Your task to perform on an android device: empty trash in the gmail app Image 0: 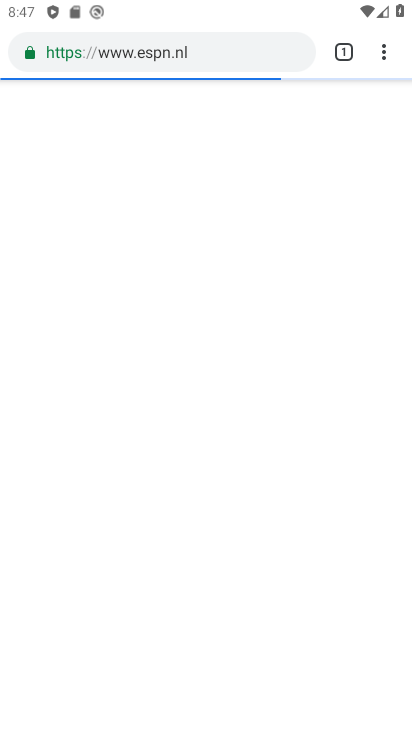
Step 0: press home button
Your task to perform on an android device: empty trash in the gmail app Image 1: 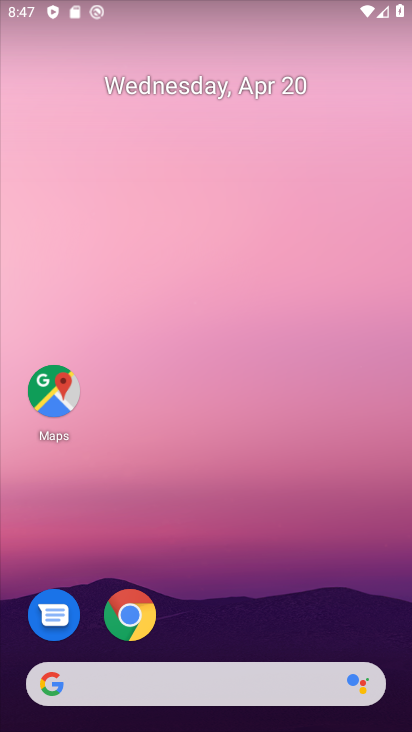
Step 1: drag from (204, 648) to (221, 55)
Your task to perform on an android device: empty trash in the gmail app Image 2: 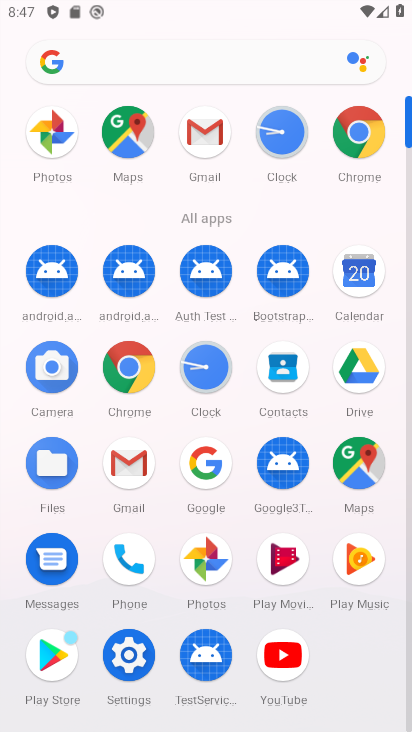
Step 2: click (124, 455)
Your task to perform on an android device: empty trash in the gmail app Image 3: 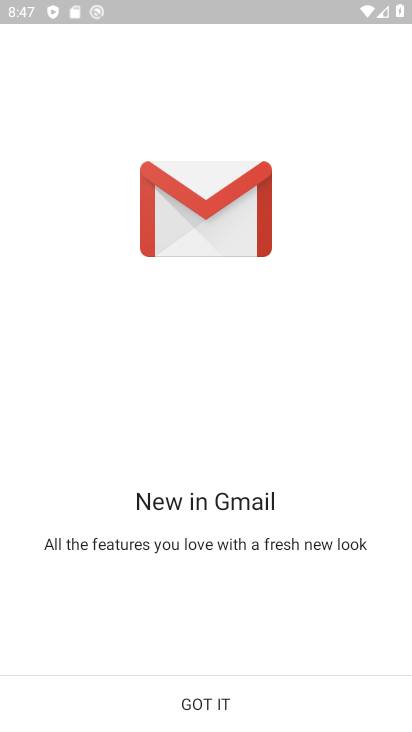
Step 3: click (167, 711)
Your task to perform on an android device: empty trash in the gmail app Image 4: 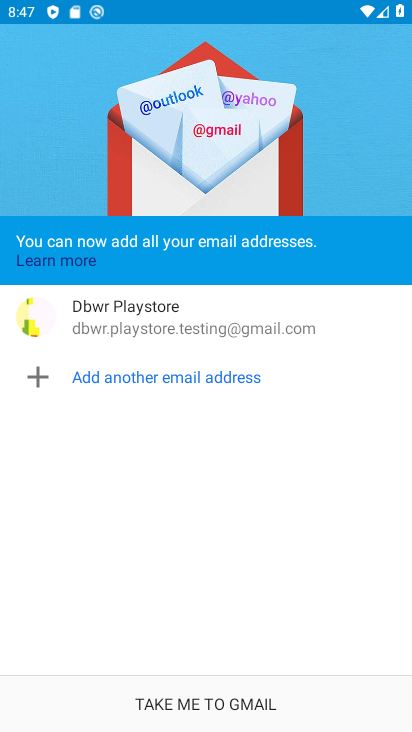
Step 4: click (168, 710)
Your task to perform on an android device: empty trash in the gmail app Image 5: 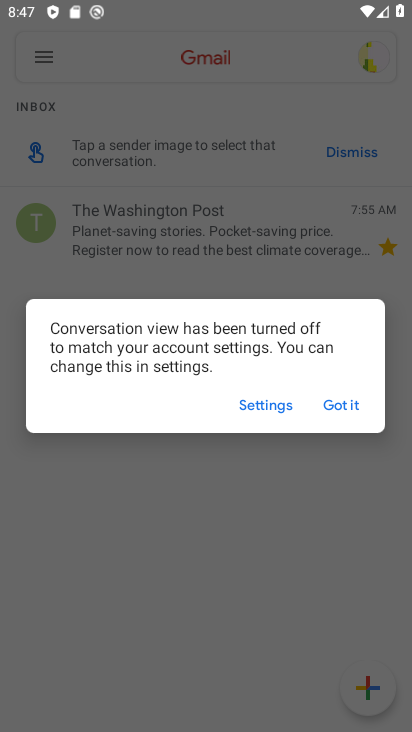
Step 5: click (328, 403)
Your task to perform on an android device: empty trash in the gmail app Image 6: 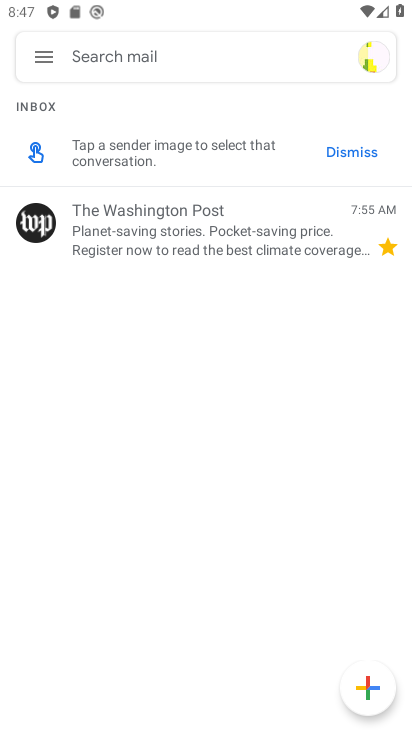
Step 6: click (23, 45)
Your task to perform on an android device: empty trash in the gmail app Image 7: 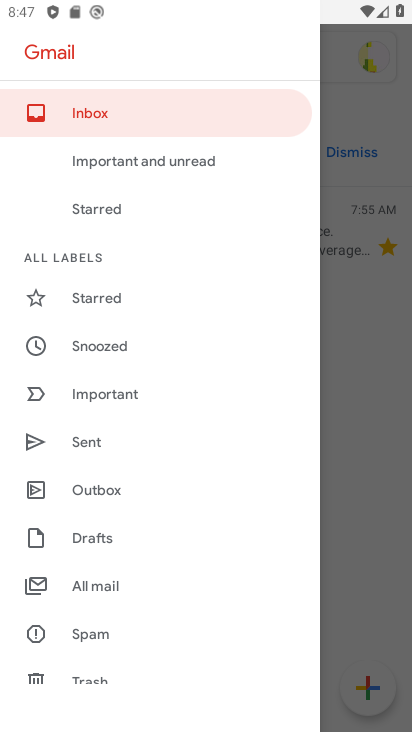
Step 7: click (83, 681)
Your task to perform on an android device: empty trash in the gmail app Image 8: 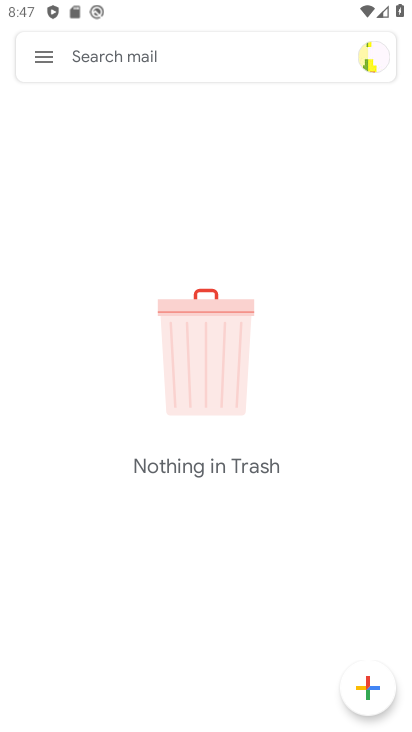
Step 8: task complete